Your task to perform on an android device: move a message to another label in the gmail app Image 0: 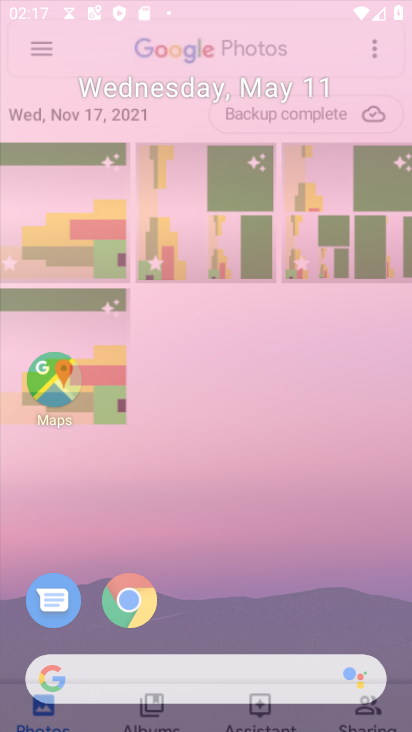
Step 0: click (265, 344)
Your task to perform on an android device: move a message to another label in the gmail app Image 1: 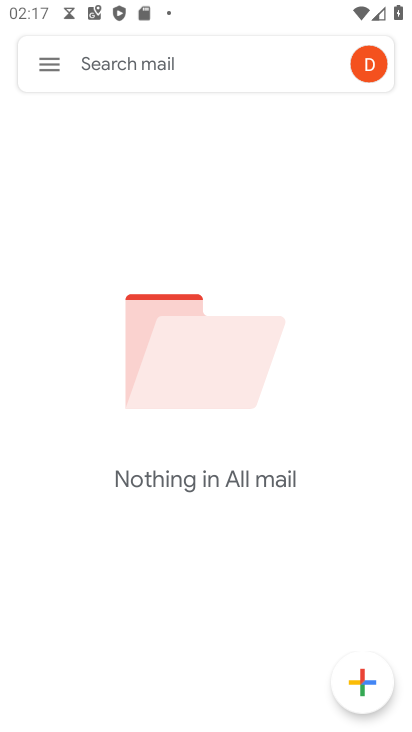
Step 1: click (48, 65)
Your task to perform on an android device: move a message to another label in the gmail app Image 2: 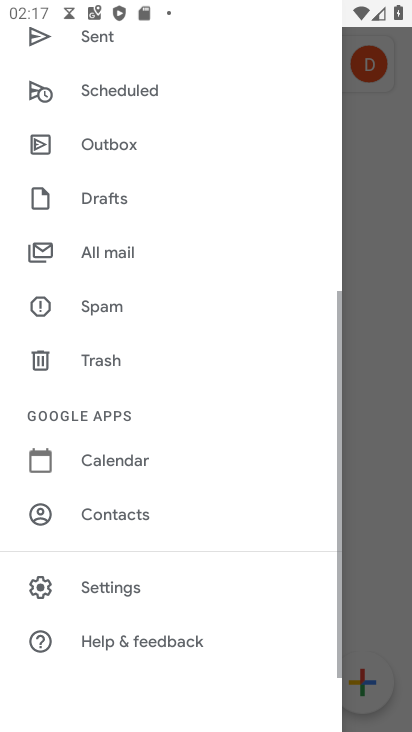
Step 2: drag from (133, 97) to (144, 442)
Your task to perform on an android device: move a message to another label in the gmail app Image 3: 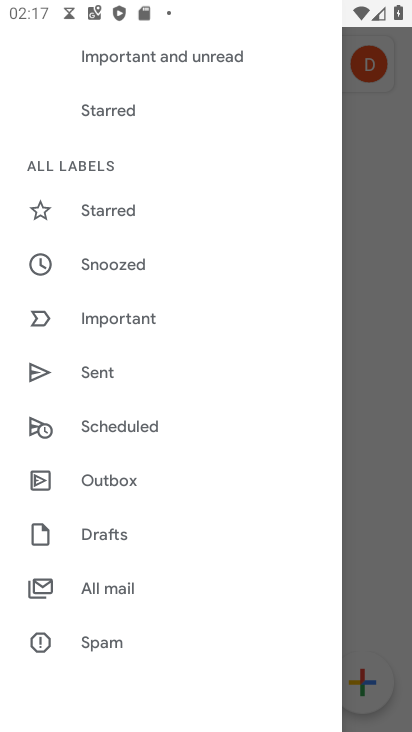
Step 3: click (111, 589)
Your task to perform on an android device: move a message to another label in the gmail app Image 4: 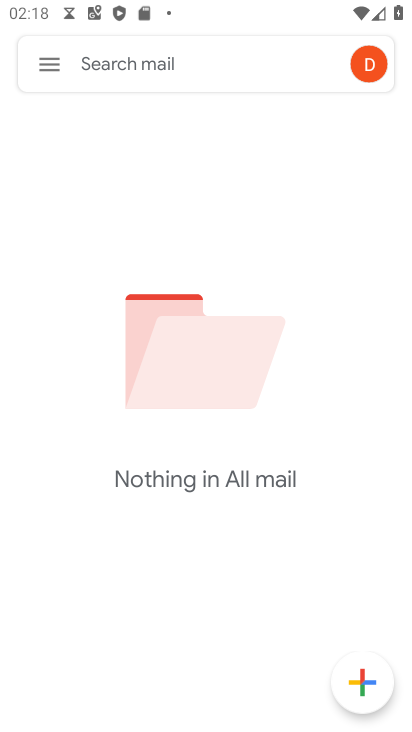
Step 4: task complete